Your task to perform on an android device: Open location settings Image 0: 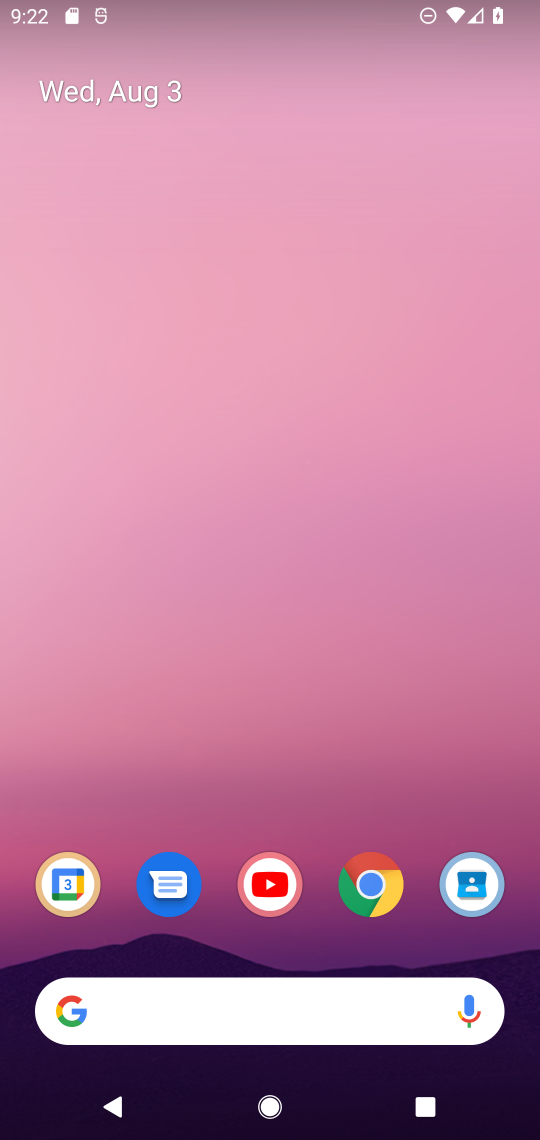
Step 0: drag from (16, 1080) to (296, 362)
Your task to perform on an android device: Open location settings Image 1: 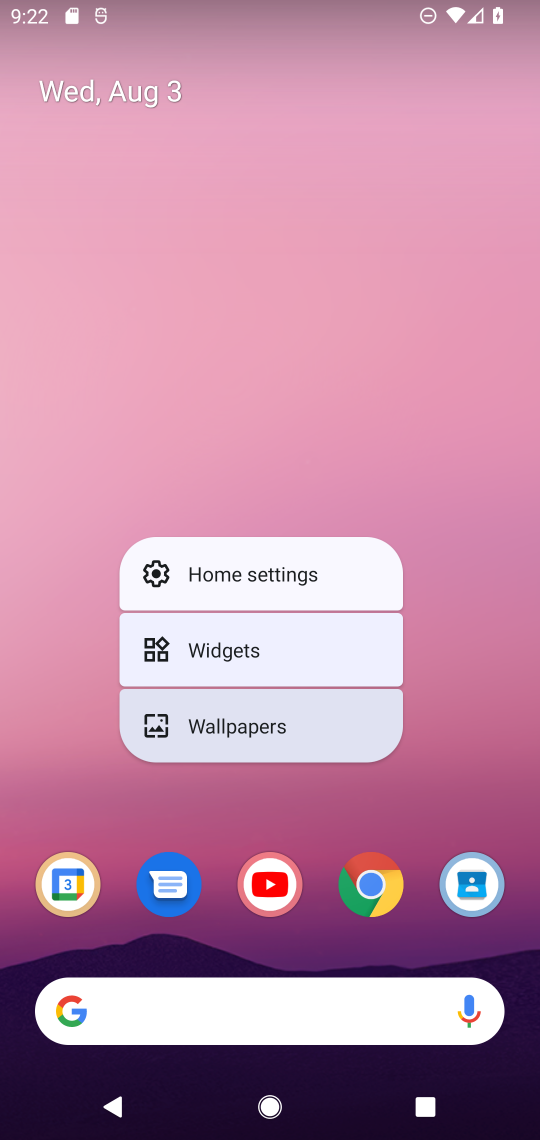
Step 1: task complete